Your task to perform on an android device: Go to display settings Image 0: 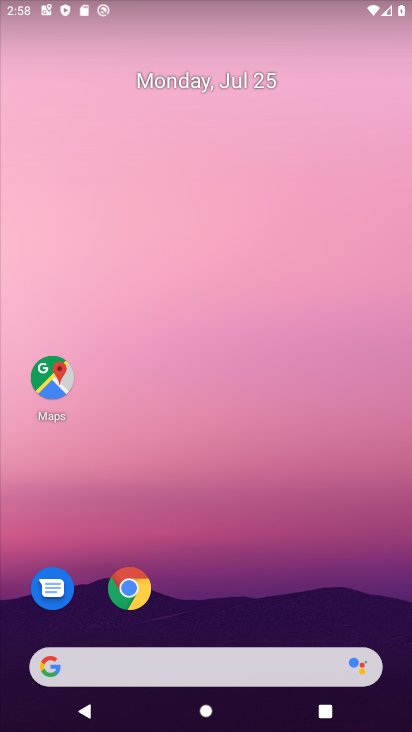
Step 0: drag from (333, 578) to (275, 49)
Your task to perform on an android device: Go to display settings Image 1: 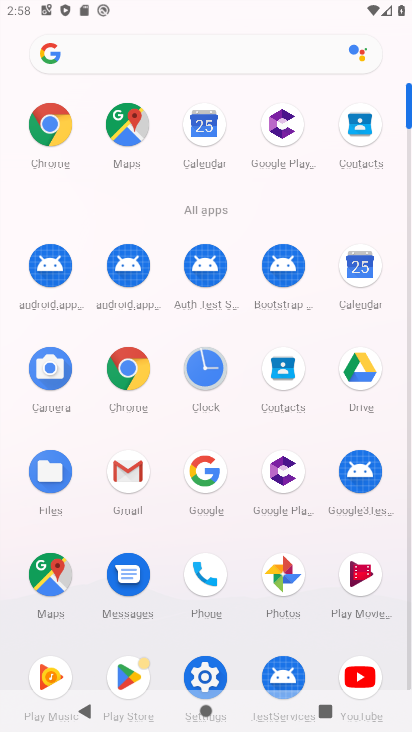
Step 1: click (270, 1)
Your task to perform on an android device: Go to display settings Image 2: 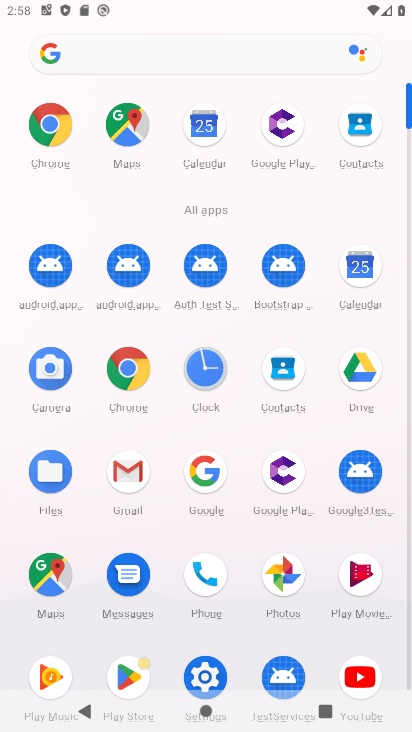
Step 2: click (199, 679)
Your task to perform on an android device: Go to display settings Image 3: 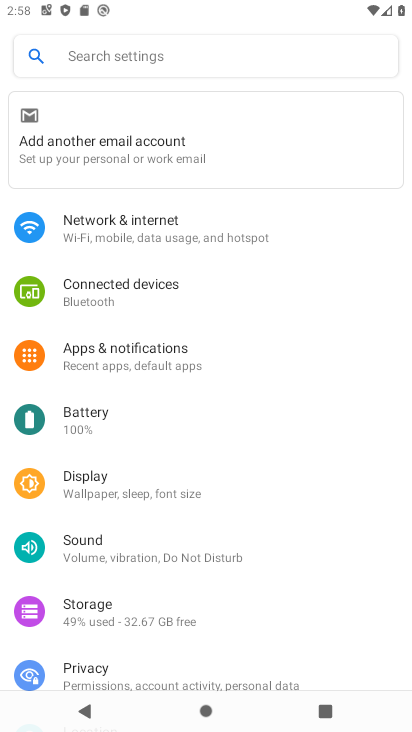
Step 3: click (138, 492)
Your task to perform on an android device: Go to display settings Image 4: 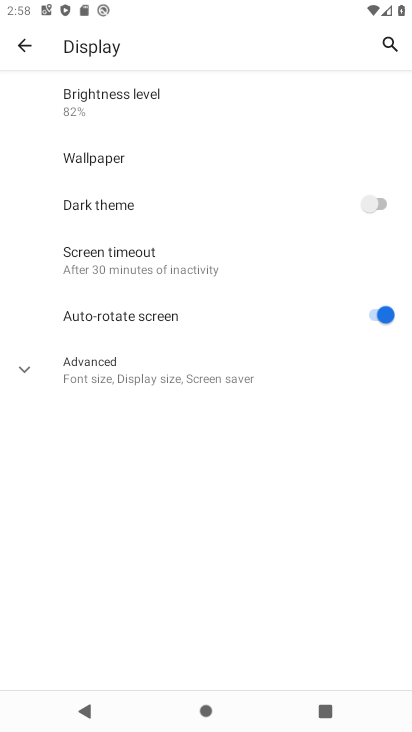
Step 4: task complete